Your task to perform on an android device: add a contact Image 0: 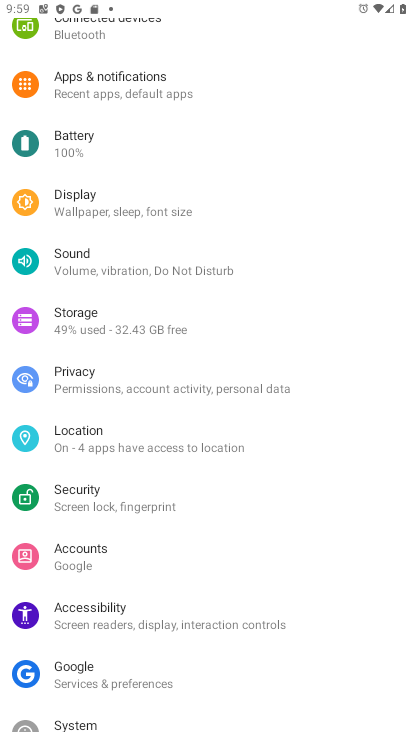
Step 0: press home button
Your task to perform on an android device: add a contact Image 1: 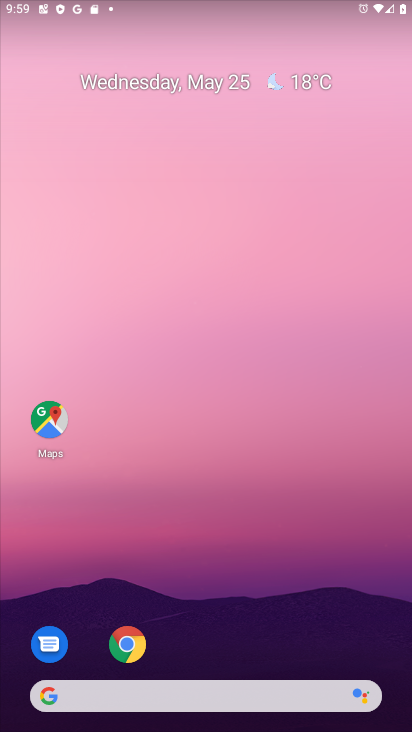
Step 1: drag from (224, 653) to (216, 46)
Your task to perform on an android device: add a contact Image 2: 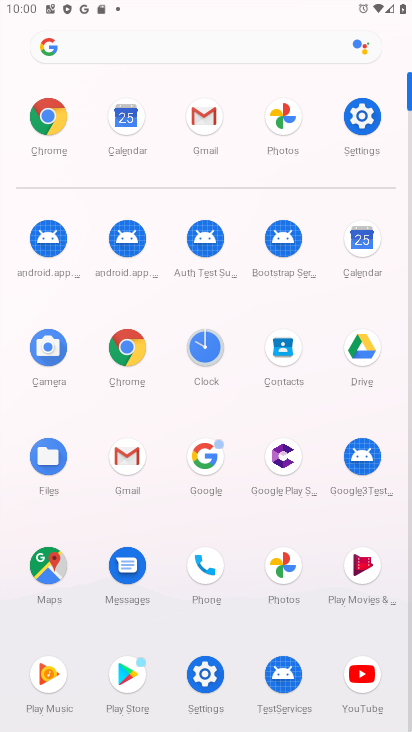
Step 2: click (280, 340)
Your task to perform on an android device: add a contact Image 3: 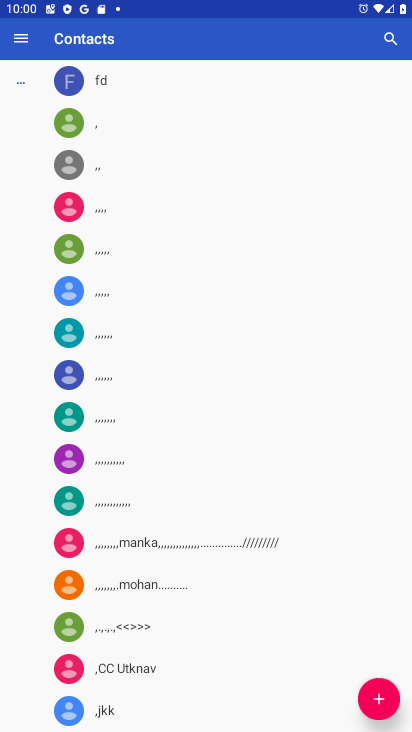
Step 3: click (381, 692)
Your task to perform on an android device: add a contact Image 4: 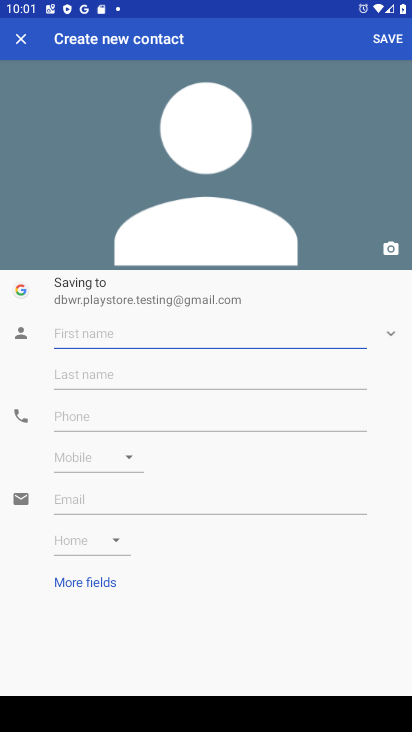
Step 4: type "gcfx"
Your task to perform on an android device: add a contact Image 5: 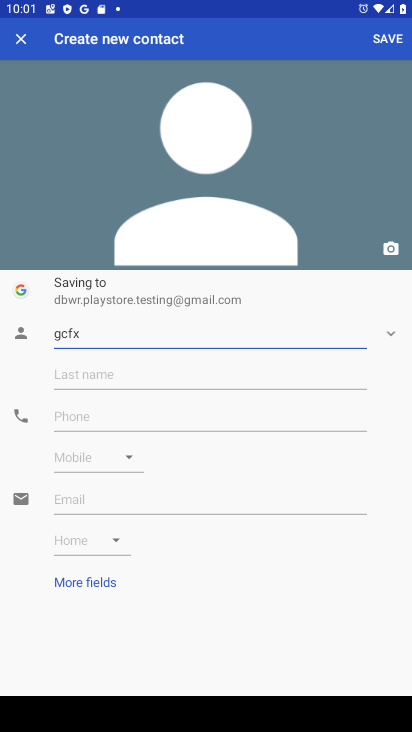
Step 5: click (387, 37)
Your task to perform on an android device: add a contact Image 6: 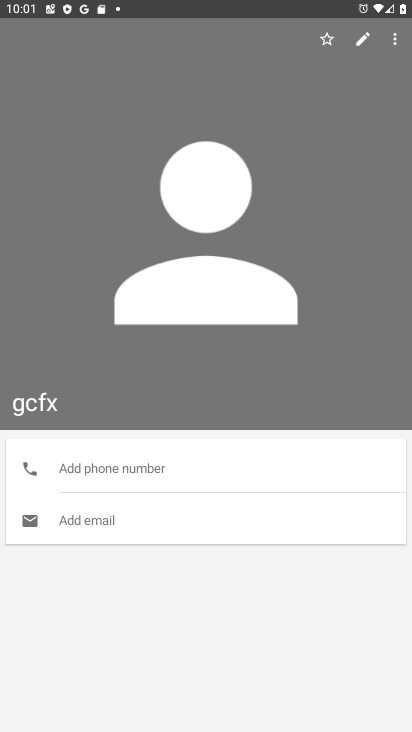
Step 6: task complete